Your task to perform on an android device: Show the shopping cart on amazon. Image 0: 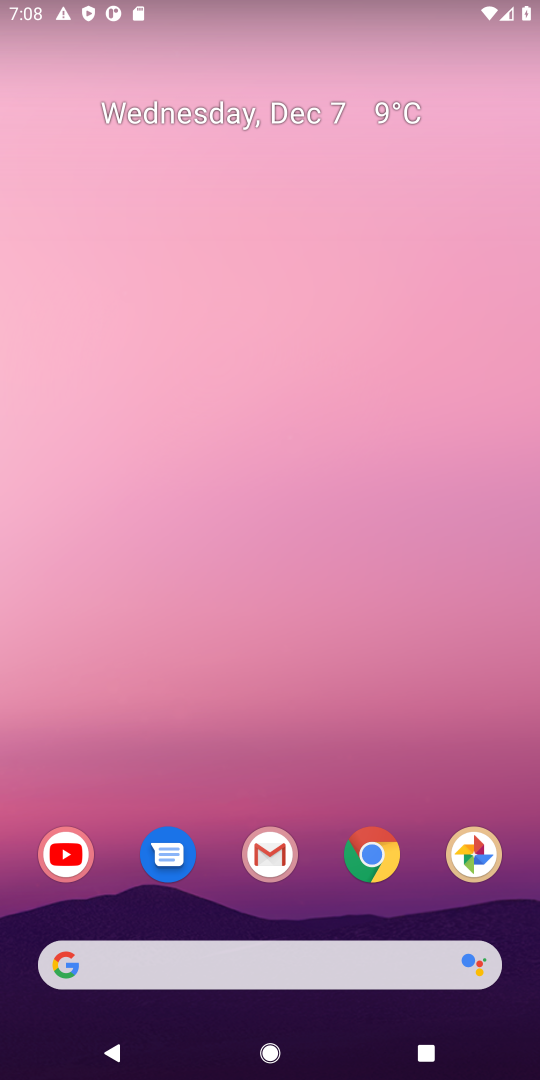
Step 0: click (188, 968)
Your task to perform on an android device: Show the shopping cart on amazon. Image 1: 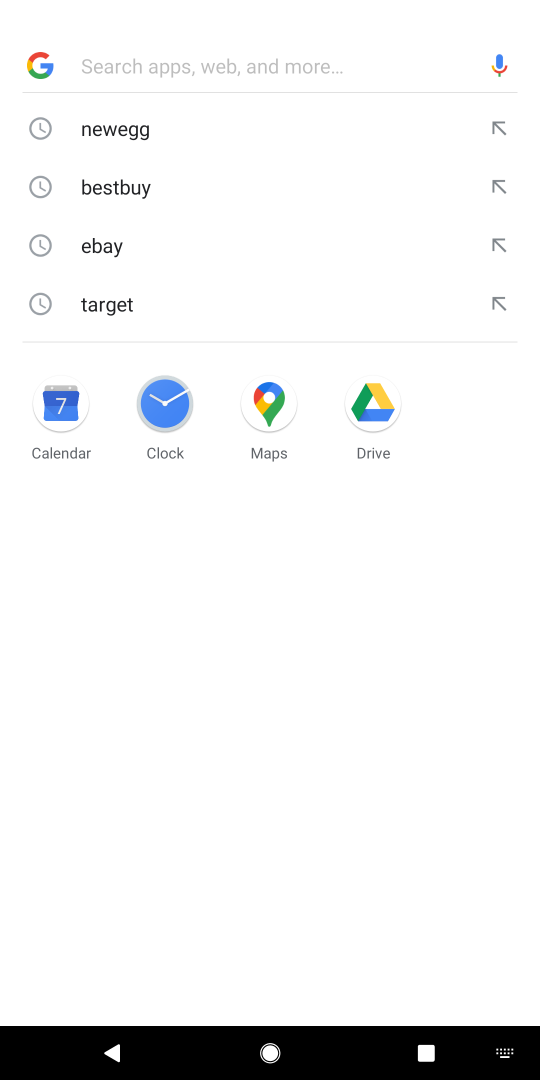
Step 1: type "amazon"
Your task to perform on an android device: Show the shopping cart on amazon. Image 2: 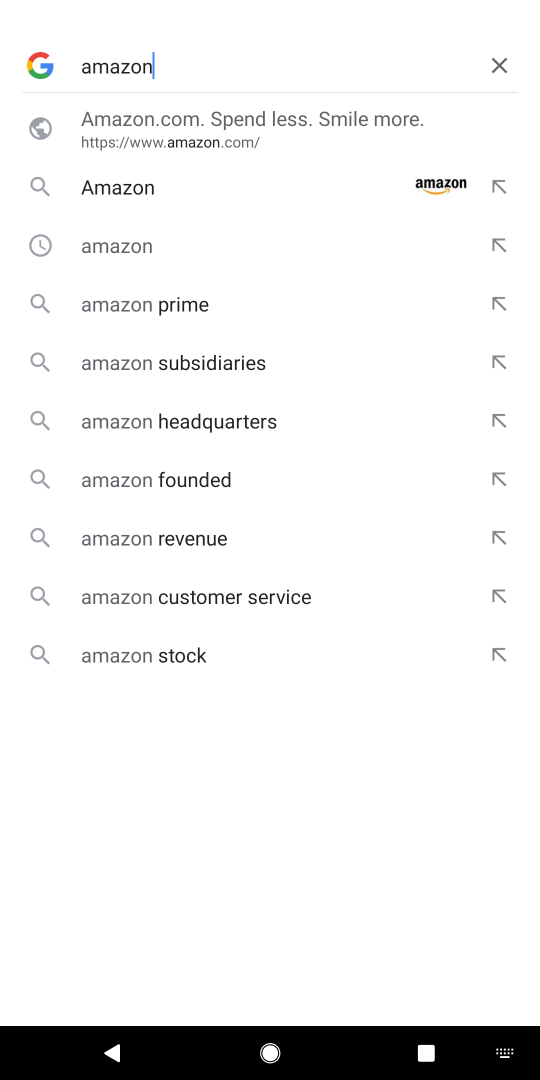
Step 2: click (235, 144)
Your task to perform on an android device: Show the shopping cart on amazon. Image 3: 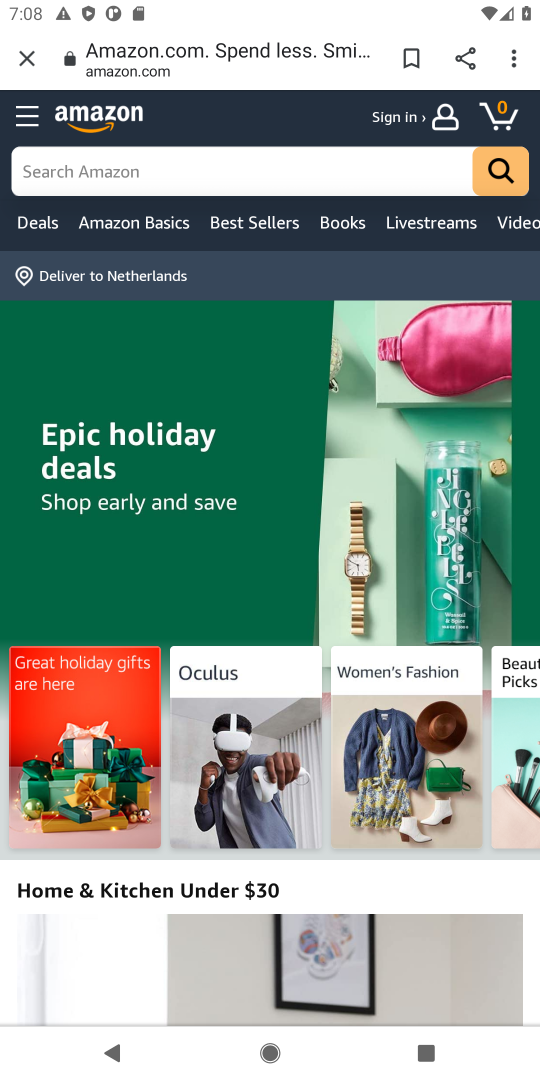
Step 3: click (235, 159)
Your task to perform on an android device: Show the shopping cart on amazon. Image 4: 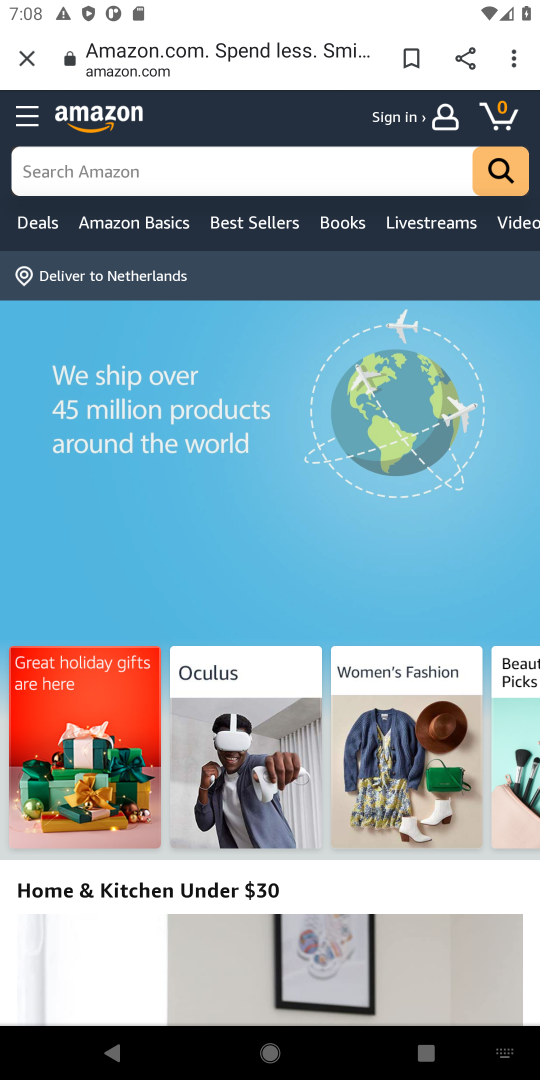
Step 4: click (497, 130)
Your task to perform on an android device: Show the shopping cart on amazon. Image 5: 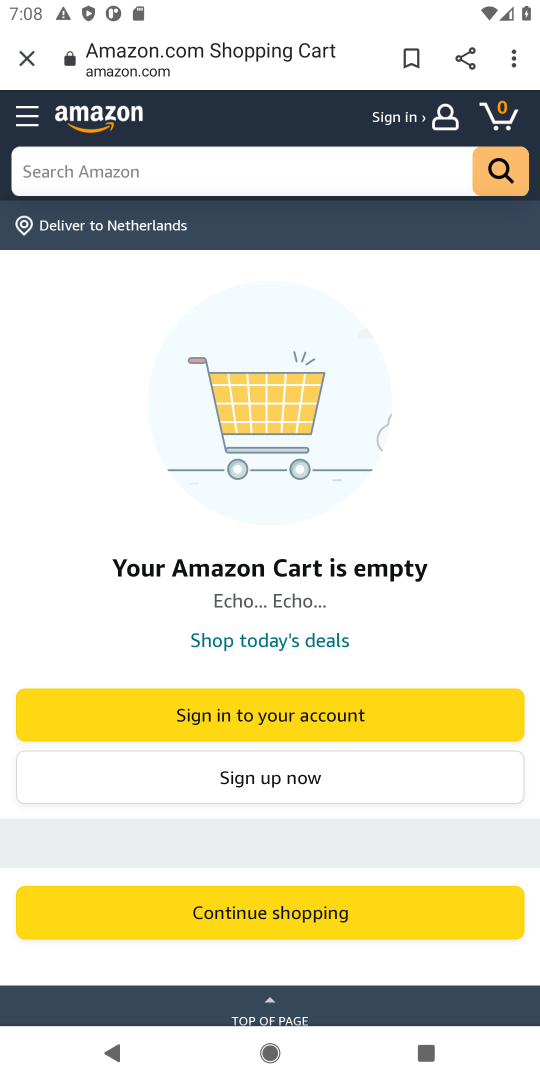
Step 5: task complete